Your task to perform on an android device: Go to calendar. Show me events next week Image 0: 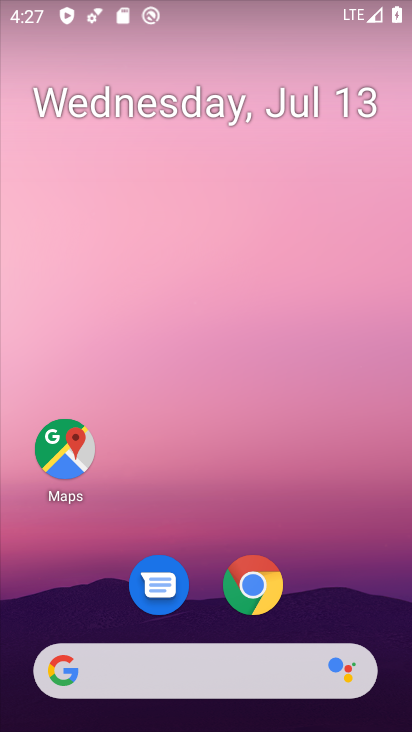
Step 0: drag from (347, 594) to (392, 25)
Your task to perform on an android device: Go to calendar. Show me events next week Image 1: 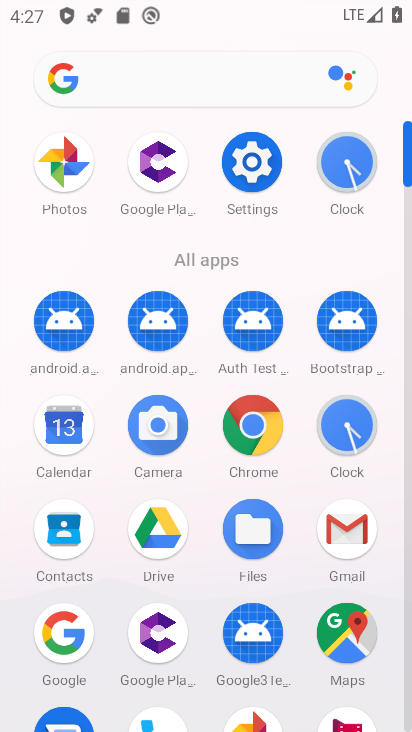
Step 1: click (65, 424)
Your task to perform on an android device: Go to calendar. Show me events next week Image 2: 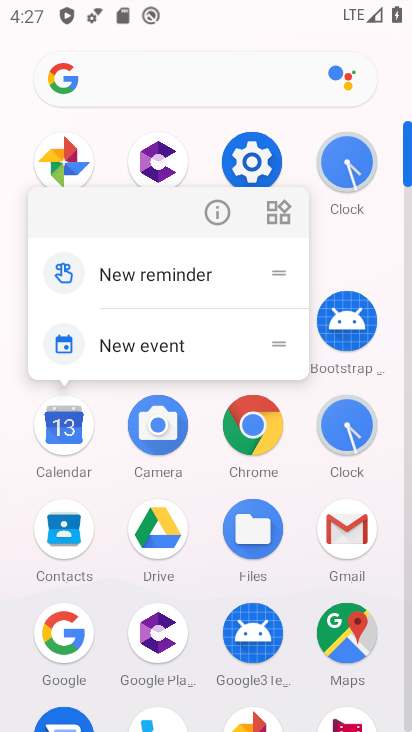
Step 2: click (65, 424)
Your task to perform on an android device: Go to calendar. Show me events next week Image 3: 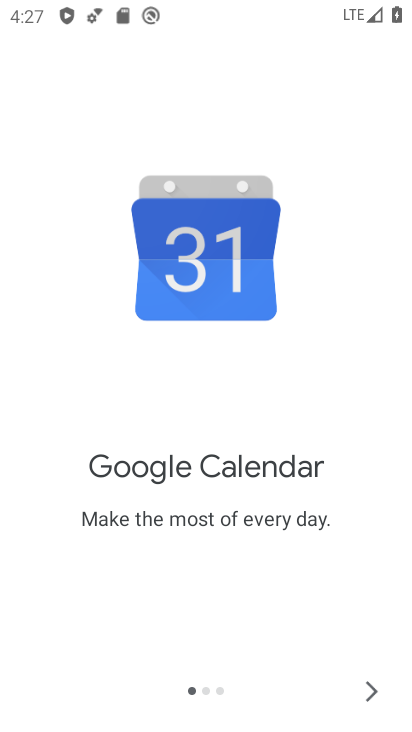
Step 3: click (373, 680)
Your task to perform on an android device: Go to calendar. Show me events next week Image 4: 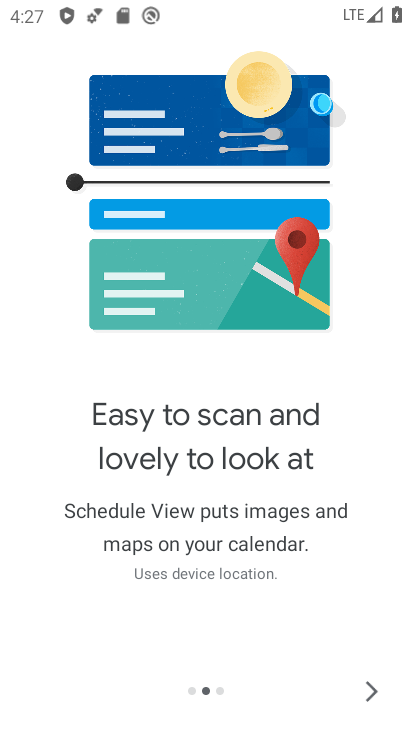
Step 4: click (373, 686)
Your task to perform on an android device: Go to calendar. Show me events next week Image 5: 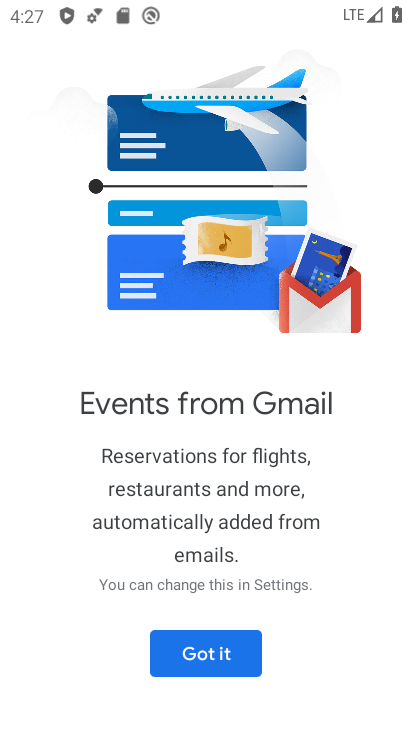
Step 5: click (236, 661)
Your task to perform on an android device: Go to calendar. Show me events next week Image 6: 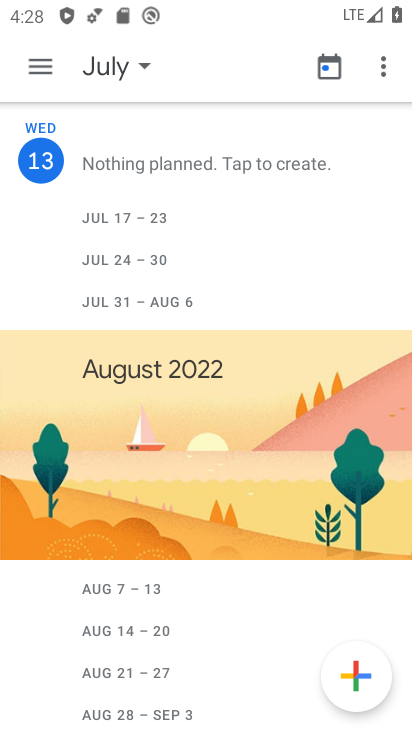
Step 6: click (41, 71)
Your task to perform on an android device: Go to calendar. Show me events next week Image 7: 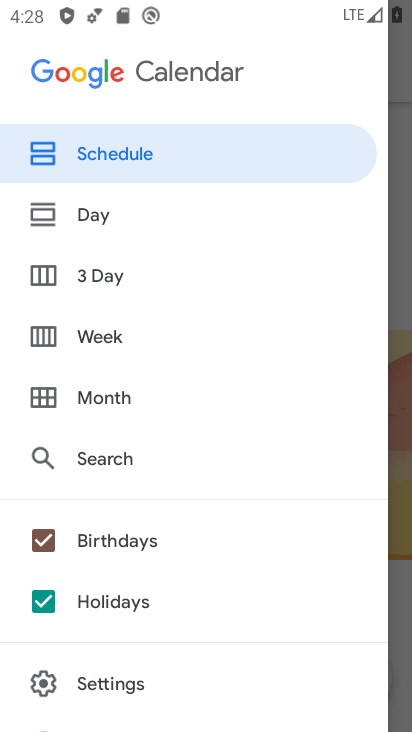
Step 7: click (40, 339)
Your task to perform on an android device: Go to calendar. Show me events next week Image 8: 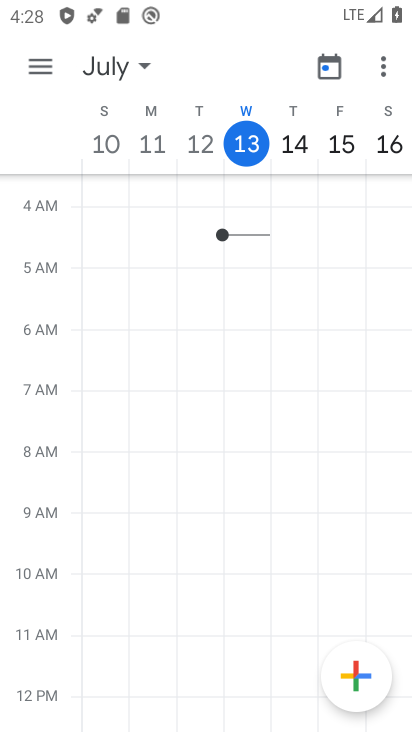
Step 8: task complete